Your task to perform on an android device: Go to Maps Image 0: 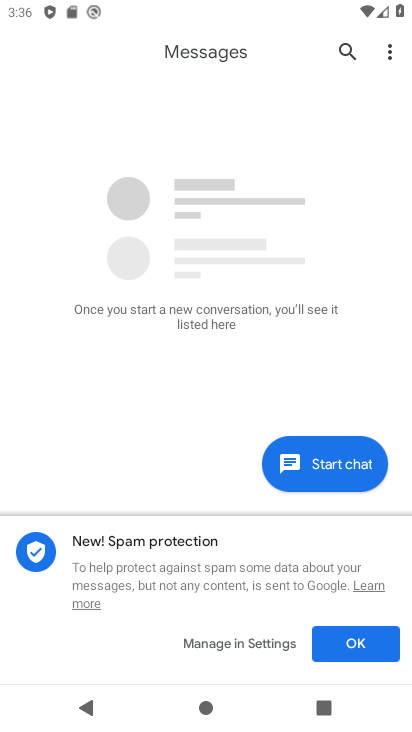
Step 0: press home button
Your task to perform on an android device: Go to Maps Image 1: 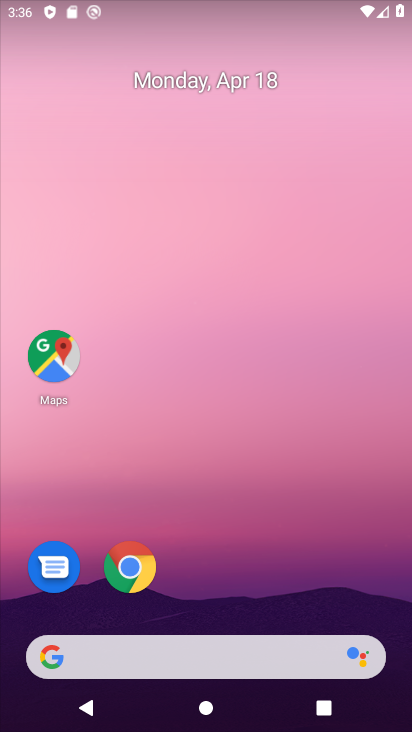
Step 1: click (65, 357)
Your task to perform on an android device: Go to Maps Image 2: 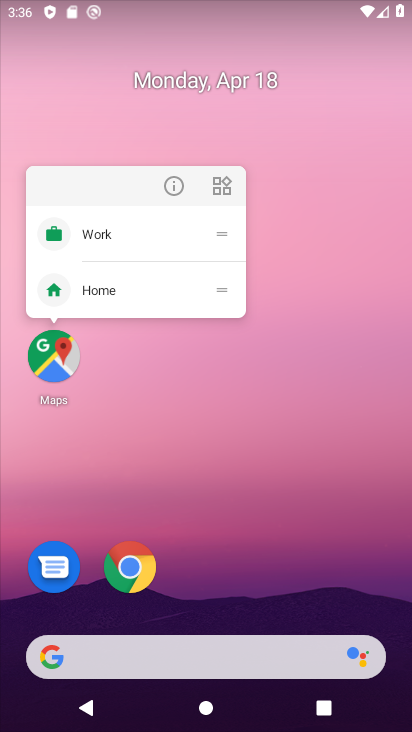
Step 2: click (49, 376)
Your task to perform on an android device: Go to Maps Image 3: 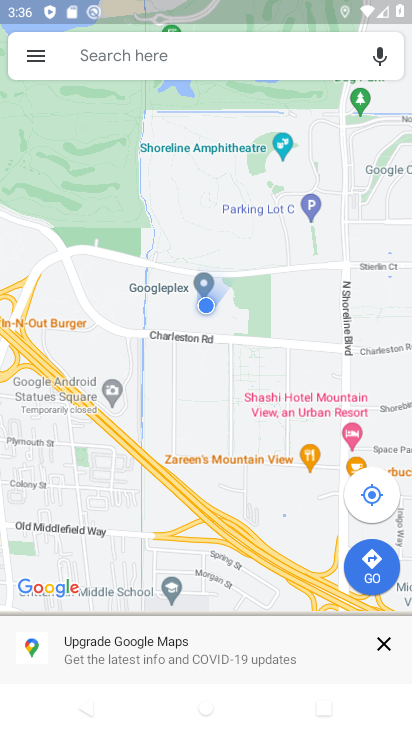
Step 3: task complete